Your task to perform on an android device: Open Chrome and go to settings Image 0: 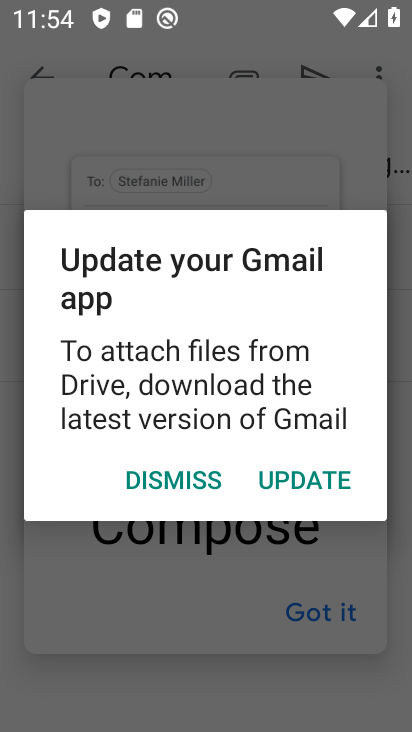
Step 0: press home button
Your task to perform on an android device: Open Chrome and go to settings Image 1: 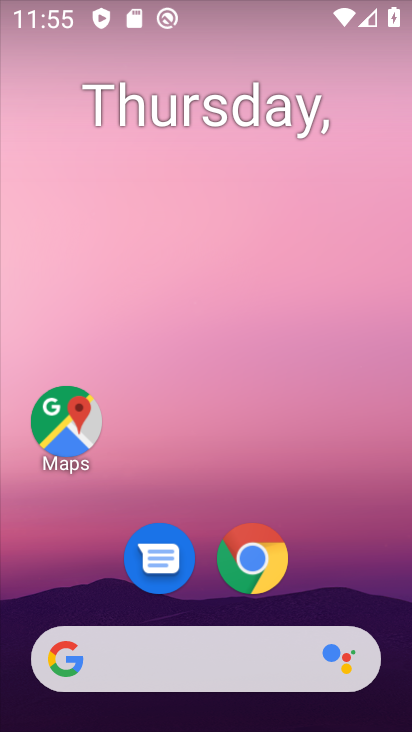
Step 1: click (252, 551)
Your task to perform on an android device: Open Chrome and go to settings Image 2: 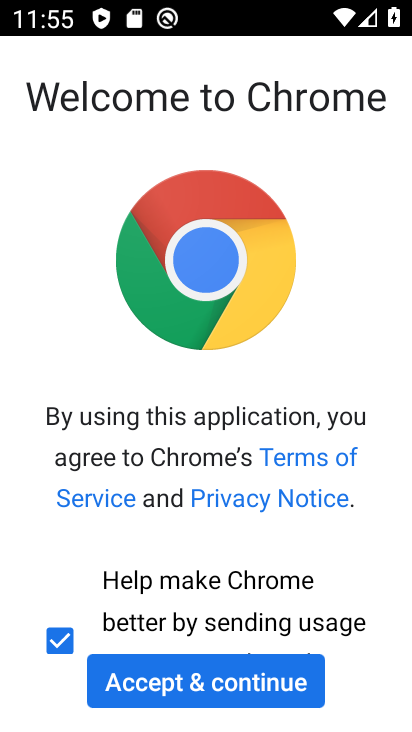
Step 2: click (198, 688)
Your task to perform on an android device: Open Chrome and go to settings Image 3: 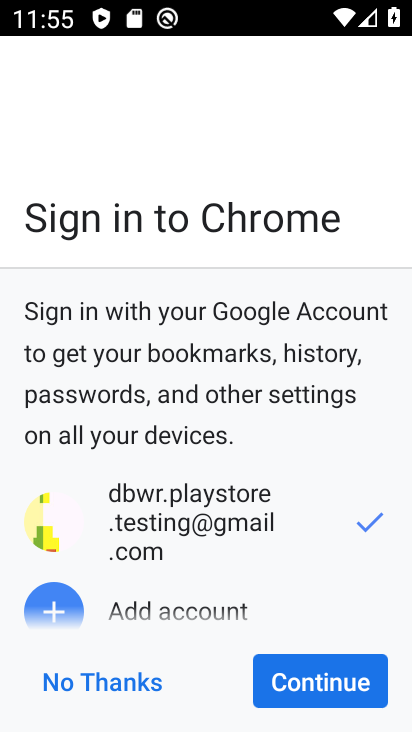
Step 3: click (316, 678)
Your task to perform on an android device: Open Chrome and go to settings Image 4: 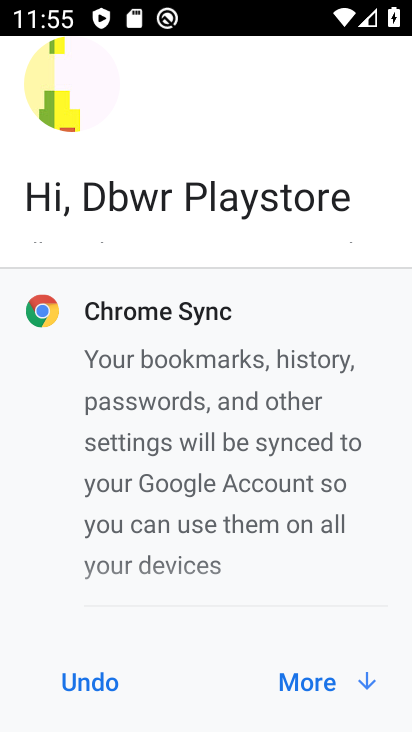
Step 4: click (316, 678)
Your task to perform on an android device: Open Chrome and go to settings Image 5: 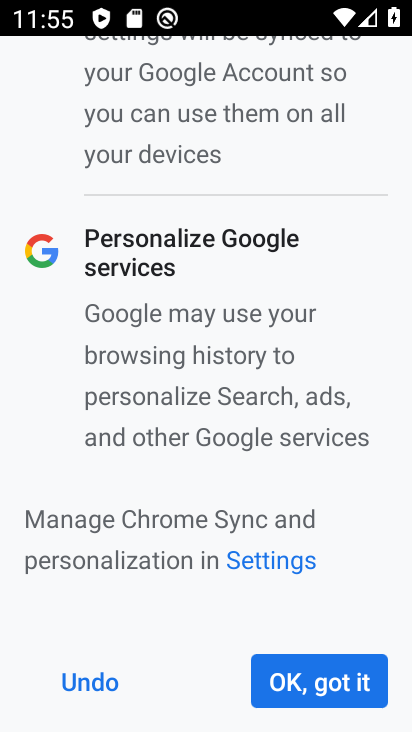
Step 5: click (316, 678)
Your task to perform on an android device: Open Chrome and go to settings Image 6: 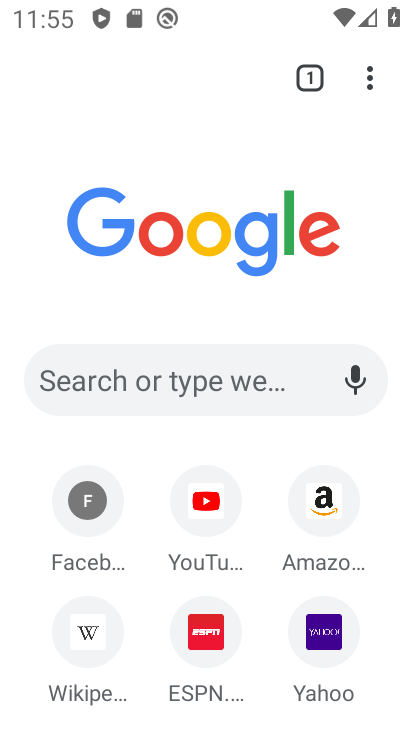
Step 6: click (379, 68)
Your task to perform on an android device: Open Chrome and go to settings Image 7: 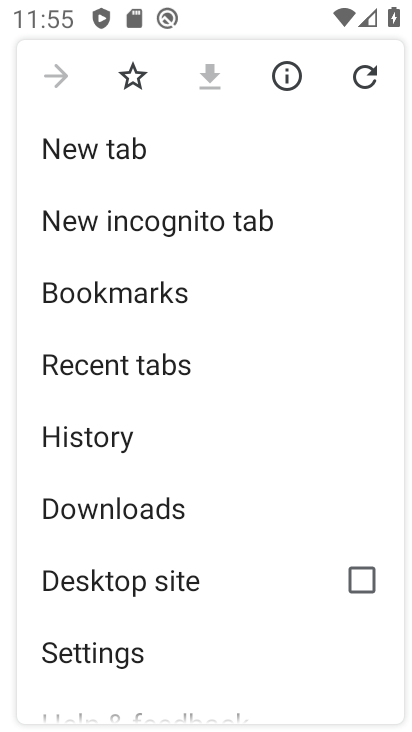
Step 7: click (121, 646)
Your task to perform on an android device: Open Chrome and go to settings Image 8: 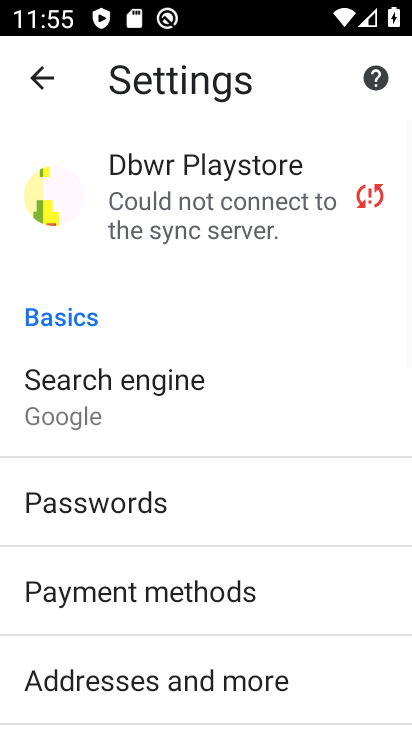
Step 8: task complete